Your task to perform on an android device: turn off improve location accuracy Image 0: 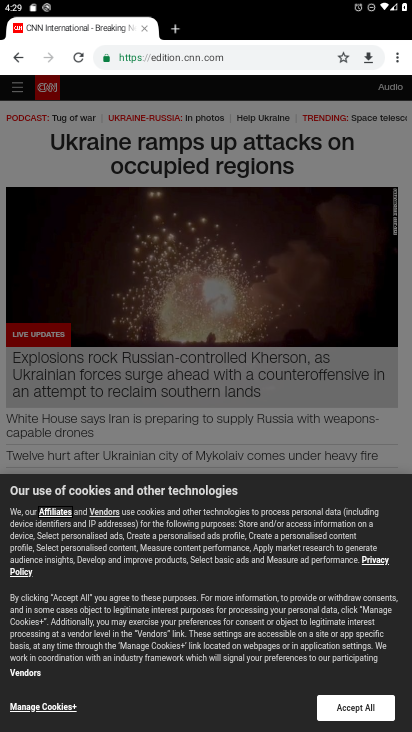
Step 0: press home button
Your task to perform on an android device: turn off improve location accuracy Image 1: 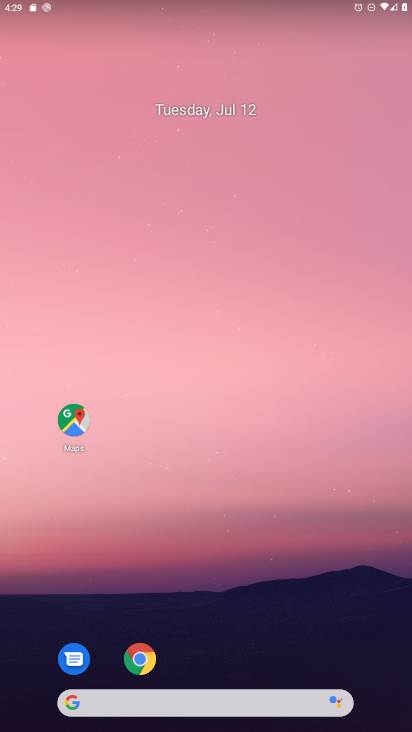
Step 1: drag from (187, 611) to (69, 124)
Your task to perform on an android device: turn off improve location accuracy Image 2: 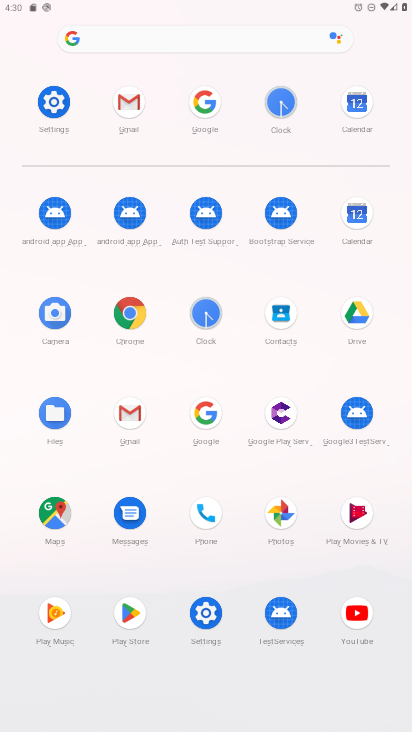
Step 2: click (202, 615)
Your task to perform on an android device: turn off improve location accuracy Image 3: 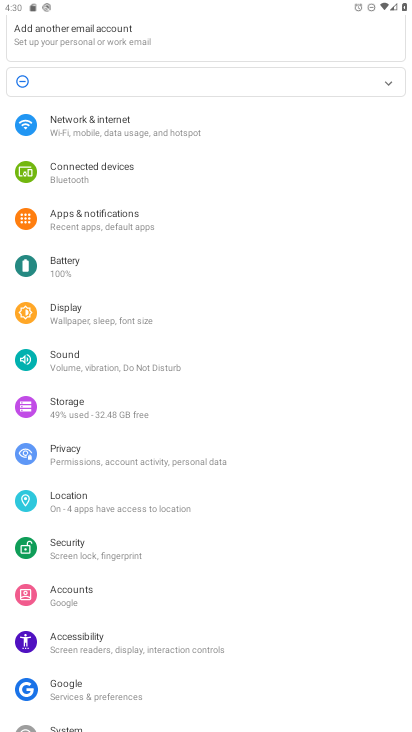
Step 3: click (76, 511)
Your task to perform on an android device: turn off improve location accuracy Image 4: 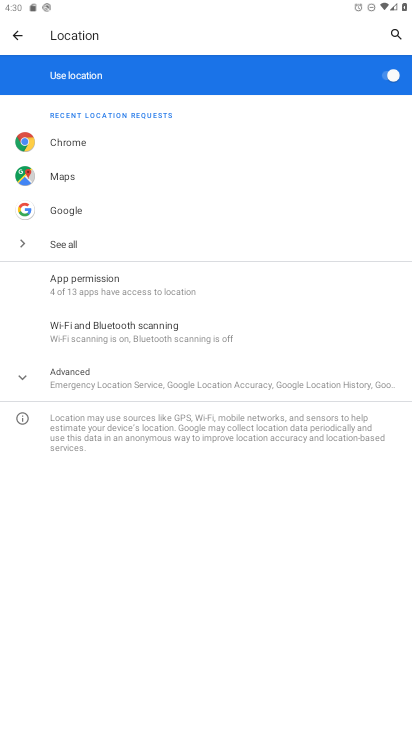
Step 4: click (69, 374)
Your task to perform on an android device: turn off improve location accuracy Image 5: 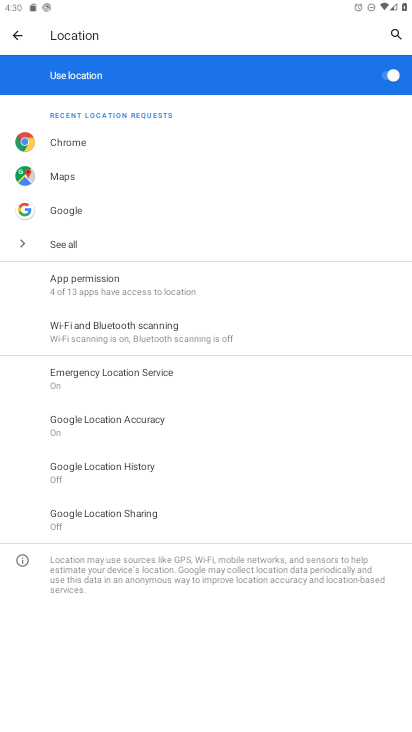
Step 5: click (95, 425)
Your task to perform on an android device: turn off improve location accuracy Image 6: 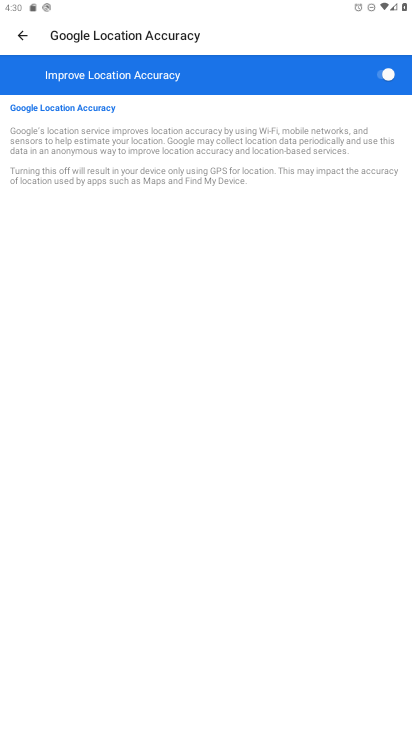
Step 6: click (384, 74)
Your task to perform on an android device: turn off improve location accuracy Image 7: 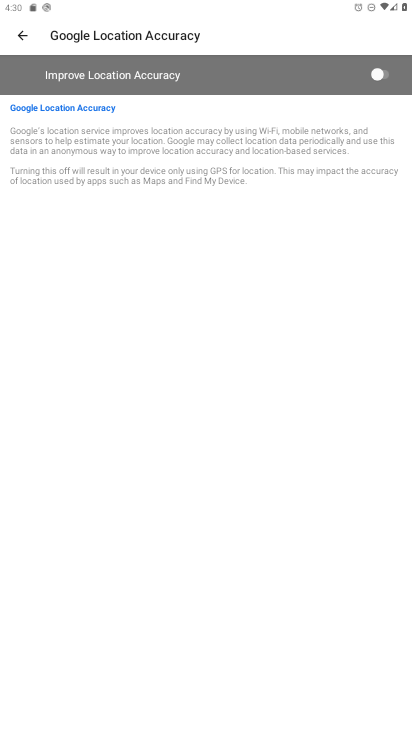
Step 7: task complete